Your task to perform on an android device: Open the calendar app, open the side menu, and click the "Day" option Image 0: 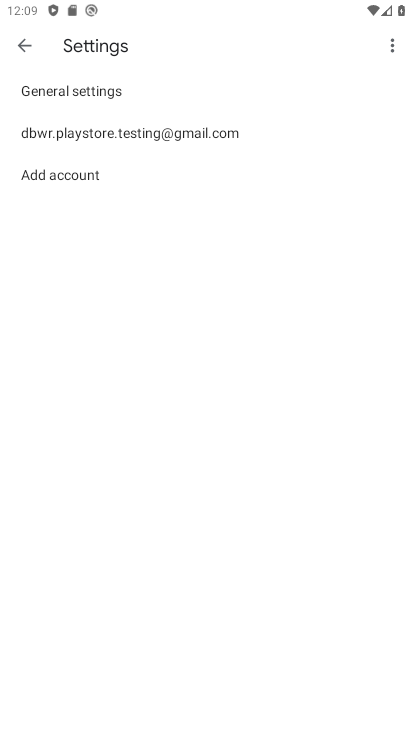
Step 0: press home button
Your task to perform on an android device: Open the calendar app, open the side menu, and click the "Day" option Image 1: 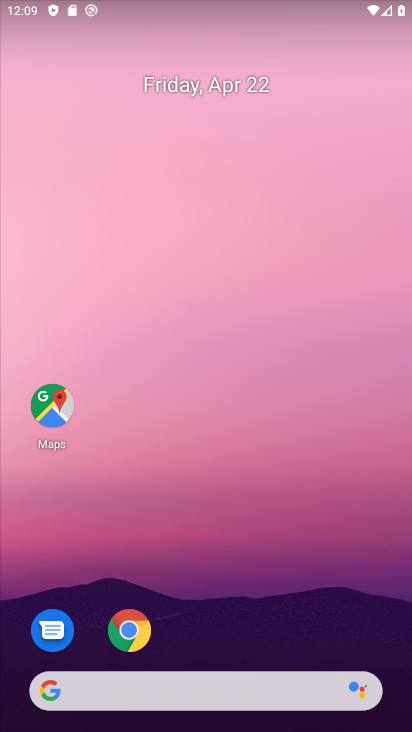
Step 1: drag from (167, 727) to (246, 145)
Your task to perform on an android device: Open the calendar app, open the side menu, and click the "Day" option Image 2: 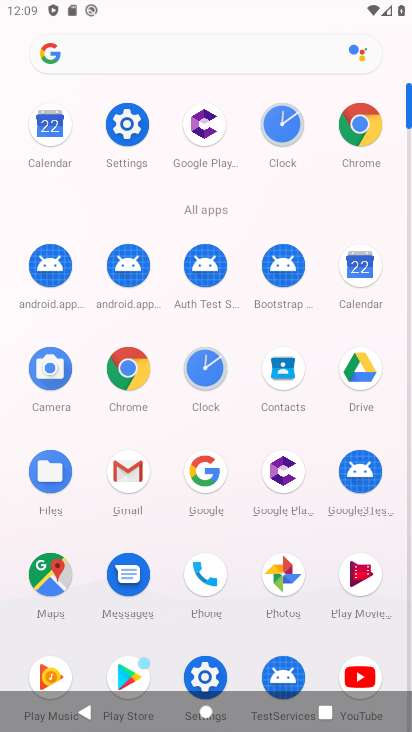
Step 2: click (357, 272)
Your task to perform on an android device: Open the calendar app, open the side menu, and click the "Day" option Image 3: 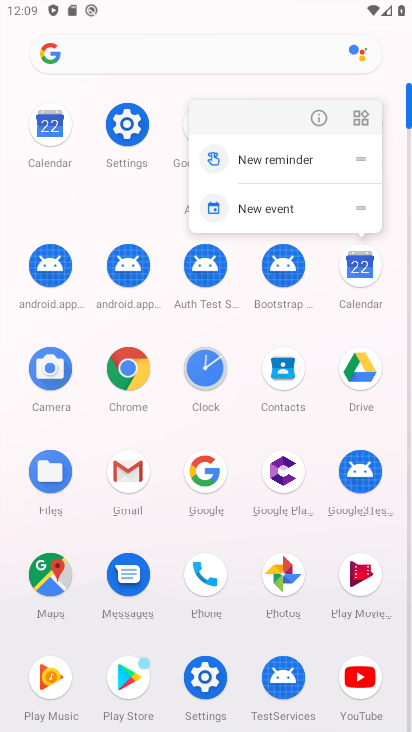
Step 3: click (348, 268)
Your task to perform on an android device: Open the calendar app, open the side menu, and click the "Day" option Image 4: 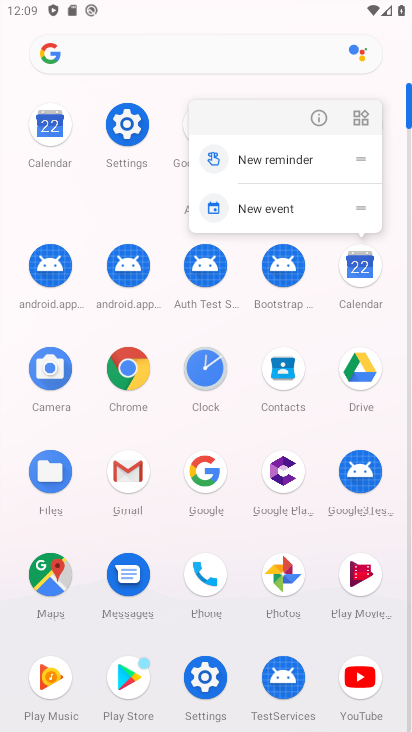
Step 4: click (348, 268)
Your task to perform on an android device: Open the calendar app, open the side menu, and click the "Day" option Image 5: 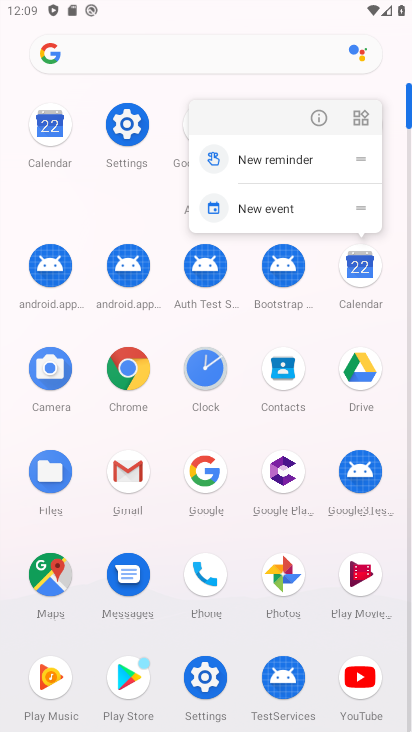
Step 5: click (367, 265)
Your task to perform on an android device: Open the calendar app, open the side menu, and click the "Day" option Image 6: 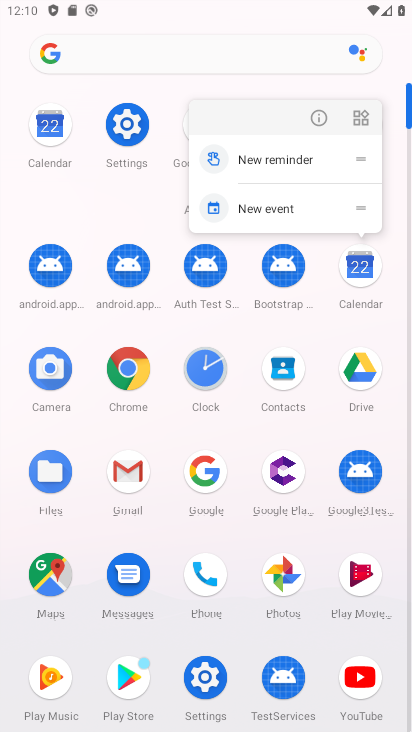
Step 6: click (364, 283)
Your task to perform on an android device: Open the calendar app, open the side menu, and click the "Day" option Image 7: 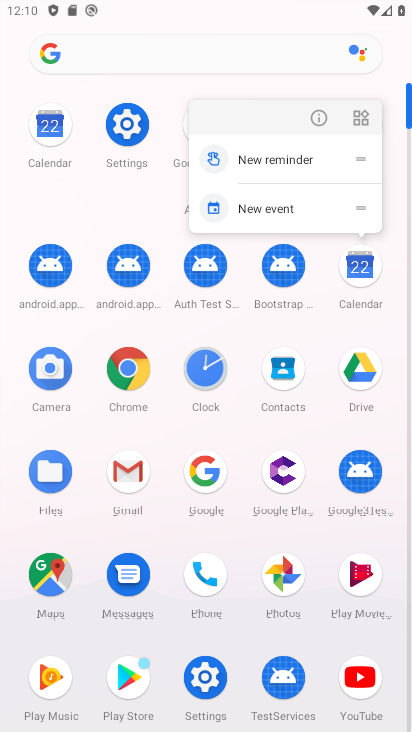
Step 7: click (364, 283)
Your task to perform on an android device: Open the calendar app, open the side menu, and click the "Day" option Image 8: 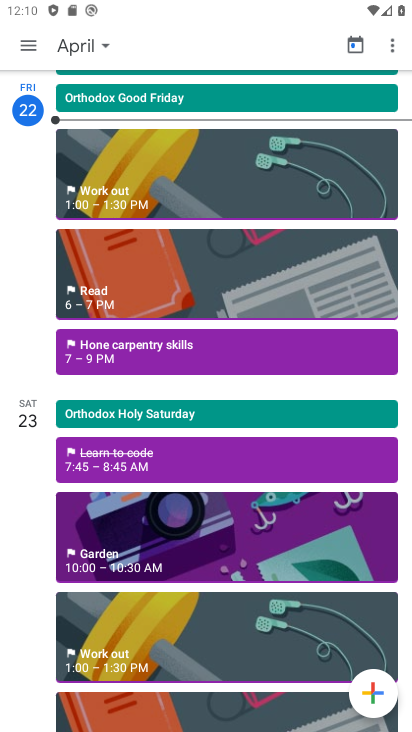
Step 8: click (28, 38)
Your task to perform on an android device: Open the calendar app, open the side menu, and click the "Day" option Image 9: 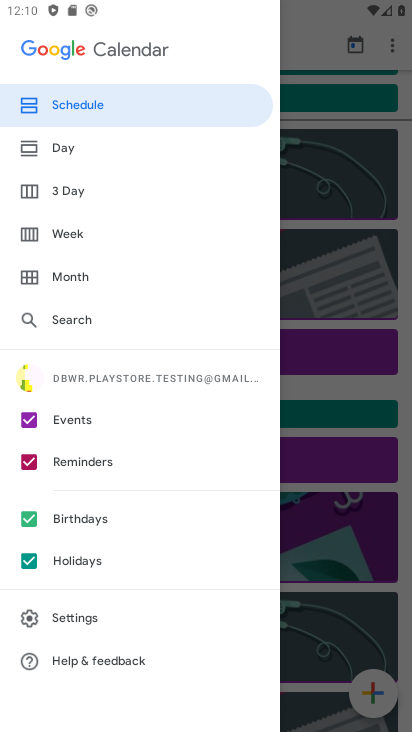
Step 9: click (94, 139)
Your task to perform on an android device: Open the calendar app, open the side menu, and click the "Day" option Image 10: 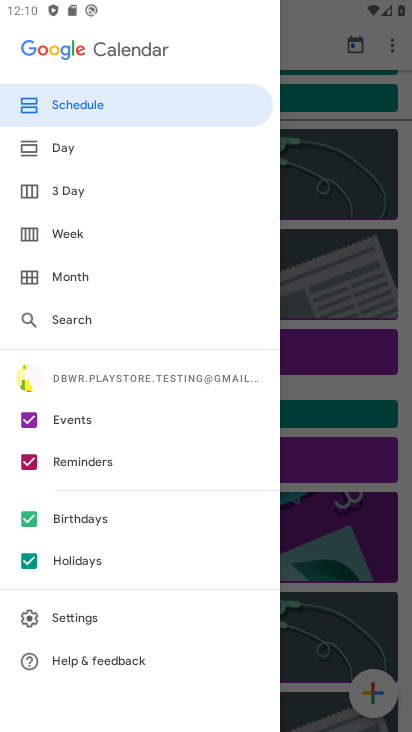
Step 10: click (76, 154)
Your task to perform on an android device: Open the calendar app, open the side menu, and click the "Day" option Image 11: 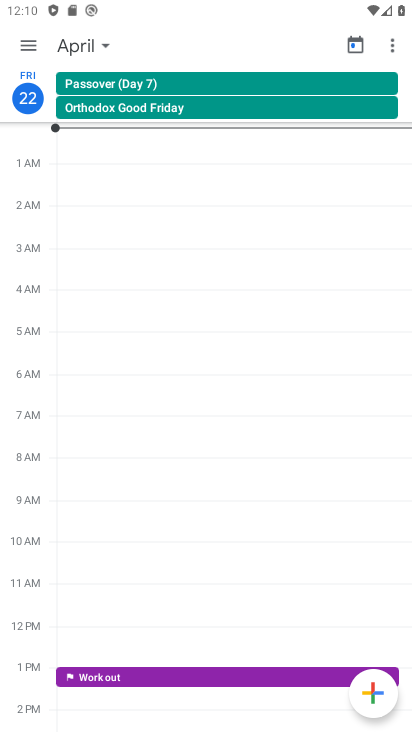
Step 11: task complete